Your task to perform on an android device: Show me popular videos on Youtube Image 0: 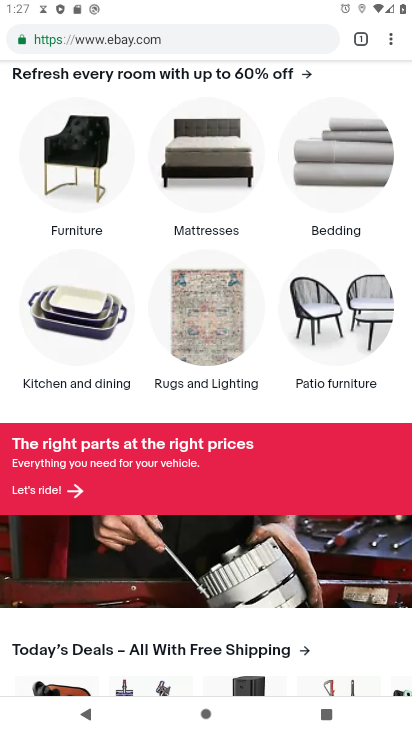
Step 0: press home button
Your task to perform on an android device: Show me popular videos on Youtube Image 1: 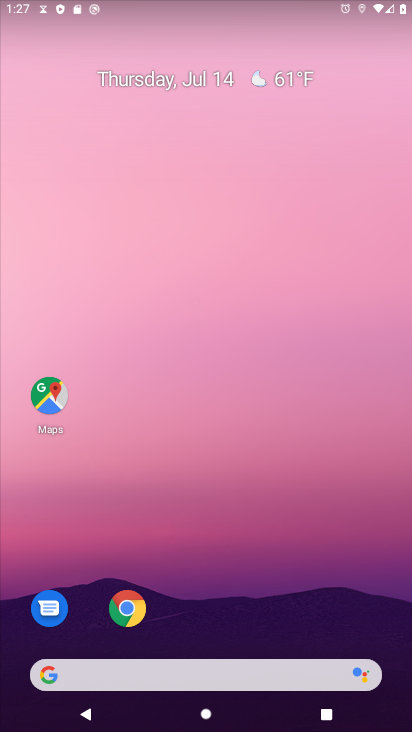
Step 1: drag from (185, 616) to (220, 131)
Your task to perform on an android device: Show me popular videos on Youtube Image 2: 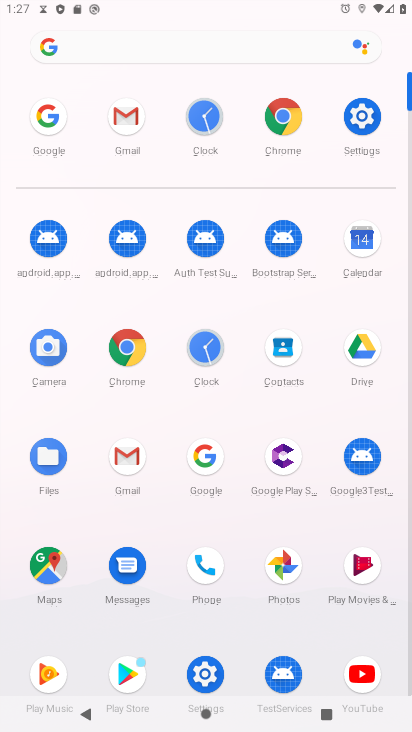
Step 2: click (364, 675)
Your task to perform on an android device: Show me popular videos on Youtube Image 3: 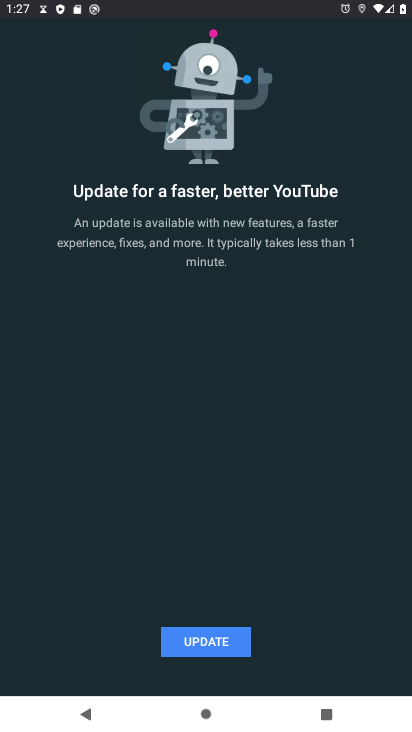
Step 3: click (201, 647)
Your task to perform on an android device: Show me popular videos on Youtube Image 4: 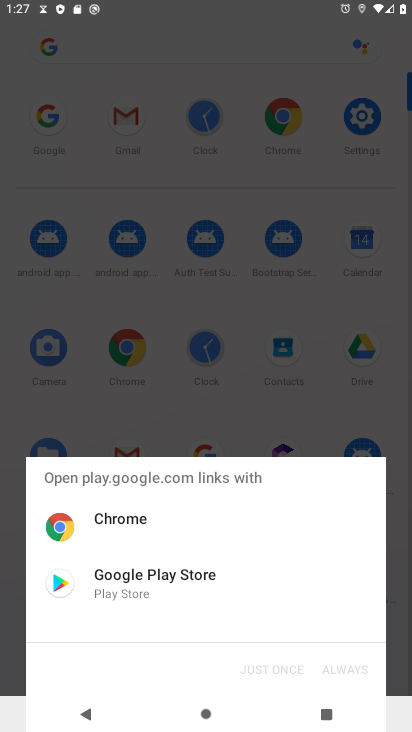
Step 4: click (158, 599)
Your task to perform on an android device: Show me popular videos on Youtube Image 5: 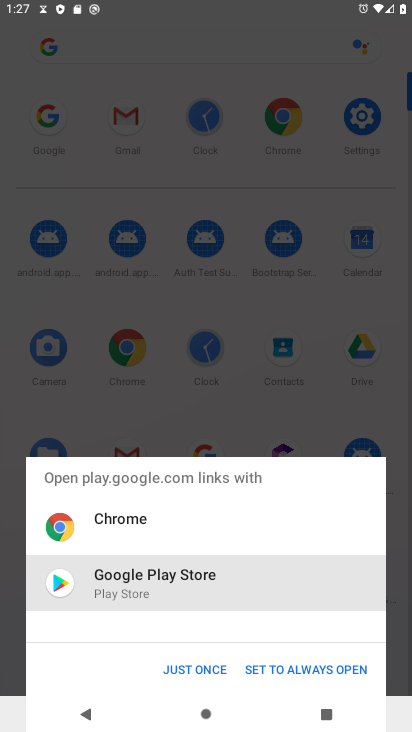
Step 5: click (208, 665)
Your task to perform on an android device: Show me popular videos on Youtube Image 6: 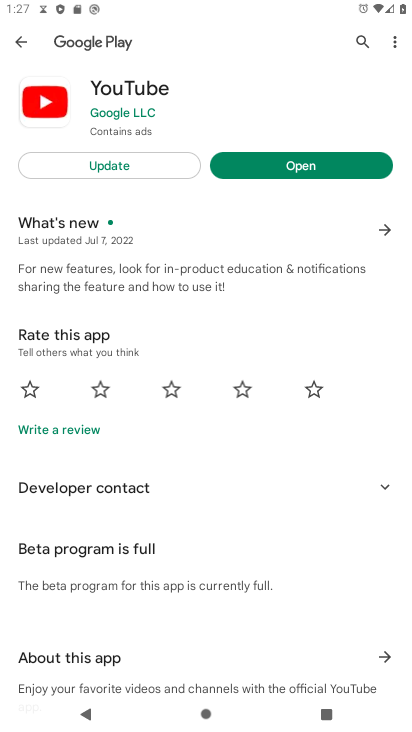
Step 6: click (126, 160)
Your task to perform on an android device: Show me popular videos on Youtube Image 7: 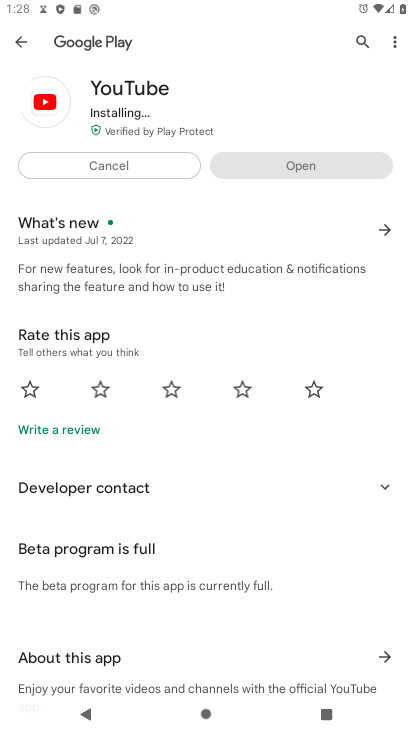
Step 7: drag from (187, 662) to (151, 317)
Your task to perform on an android device: Show me popular videos on Youtube Image 8: 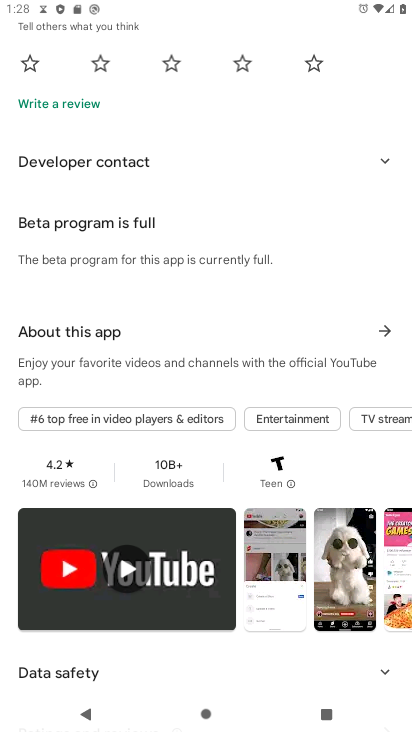
Step 8: drag from (149, 118) to (258, 659)
Your task to perform on an android device: Show me popular videos on Youtube Image 9: 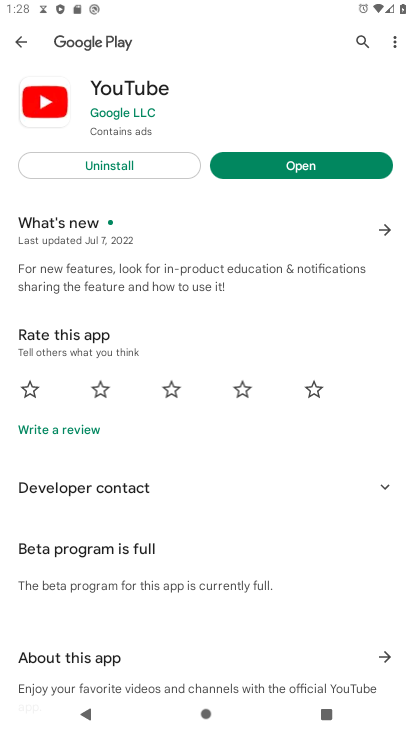
Step 9: click (279, 159)
Your task to perform on an android device: Show me popular videos on Youtube Image 10: 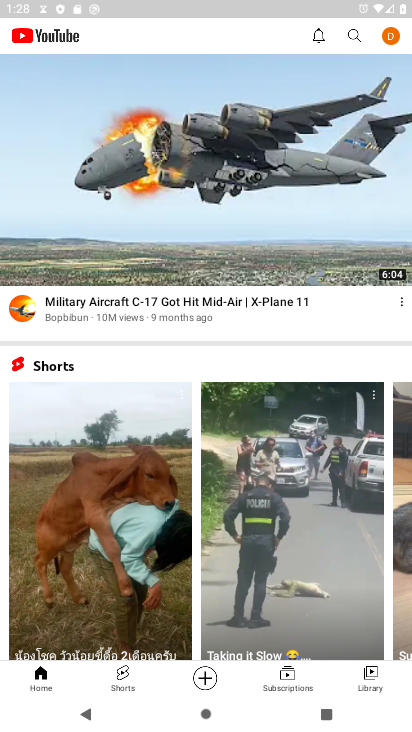
Step 10: task complete